Your task to perform on an android device: turn on the 12-hour format for clock Image 0: 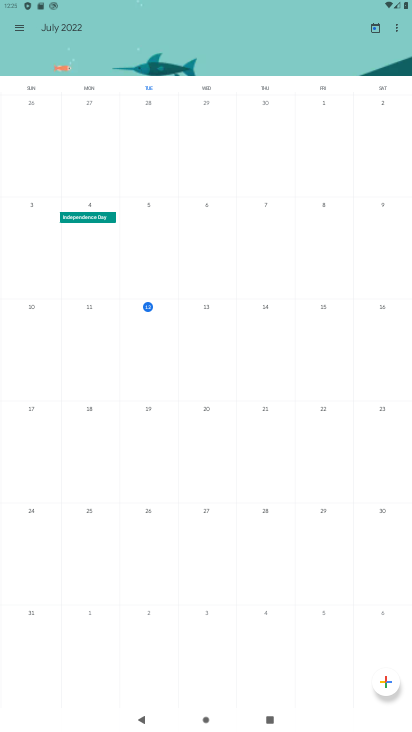
Step 0: press home button
Your task to perform on an android device: turn on the 12-hour format for clock Image 1: 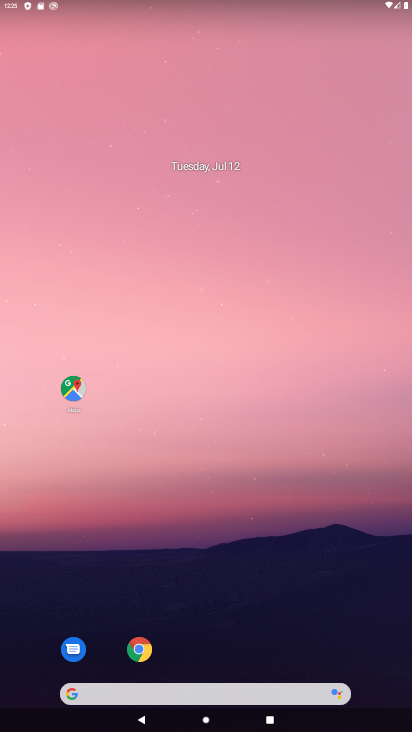
Step 1: drag from (224, 631) to (158, 167)
Your task to perform on an android device: turn on the 12-hour format for clock Image 2: 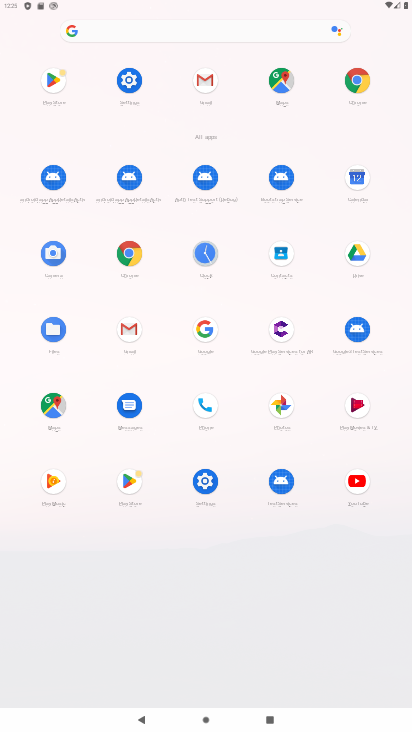
Step 2: click (207, 268)
Your task to perform on an android device: turn on the 12-hour format for clock Image 3: 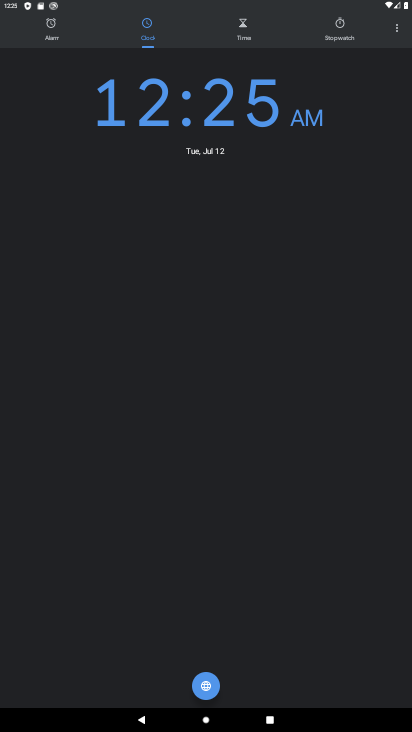
Step 3: click (392, 30)
Your task to perform on an android device: turn on the 12-hour format for clock Image 4: 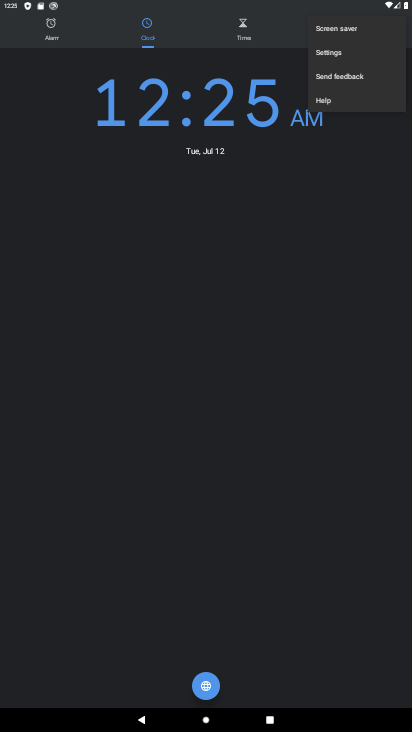
Step 4: click (331, 57)
Your task to perform on an android device: turn on the 12-hour format for clock Image 5: 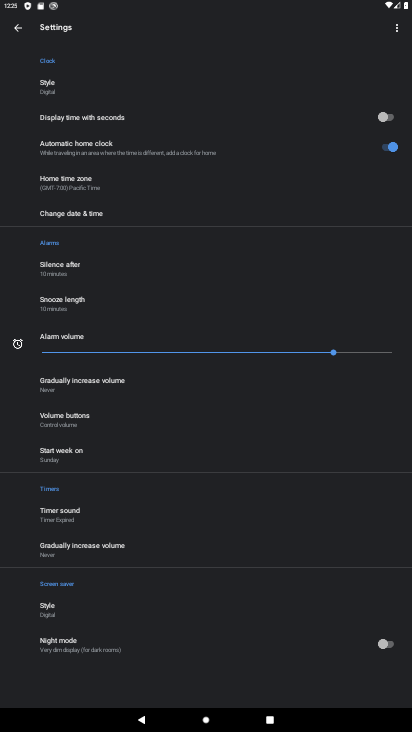
Step 5: click (15, 20)
Your task to perform on an android device: turn on the 12-hour format for clock Image 6: 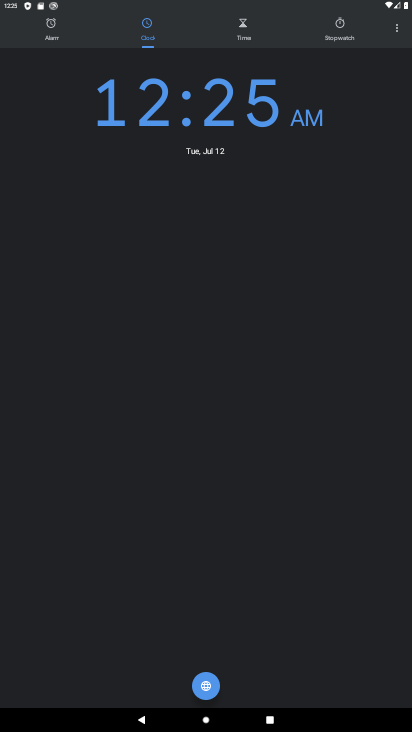
Step 6: click (399, 33)
Your task to perform on an android device: turn on the 12-hour format for clock Image 7: 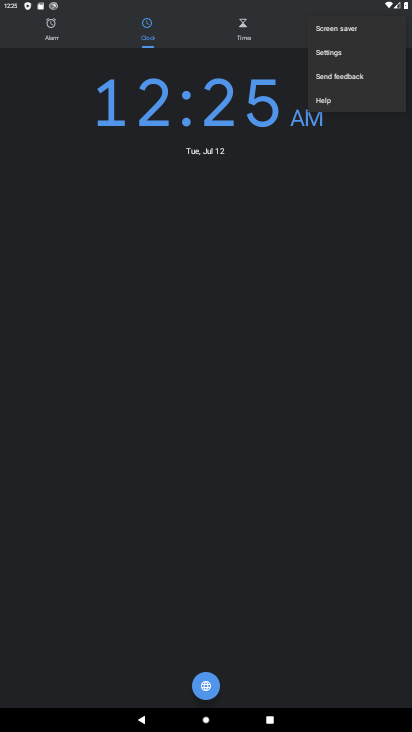
Step 7: click (341, 59)
Your task to perform on an android device: turn on the 12-hour format for clock Image 8: 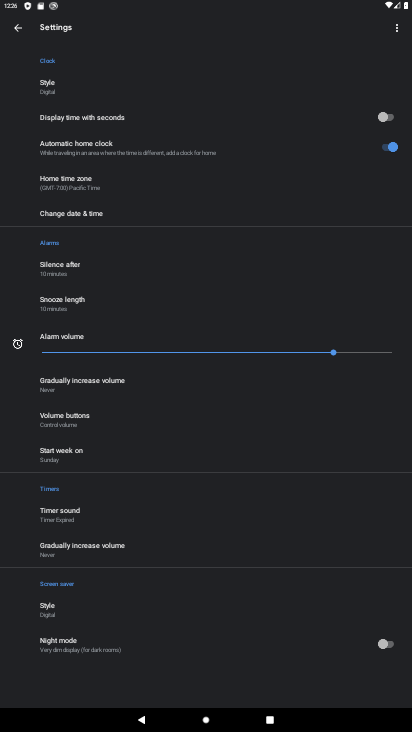
Step 8: click (117, 207)
Your task to perform on an android device: turn on the 12-hour format for clock Image 9: 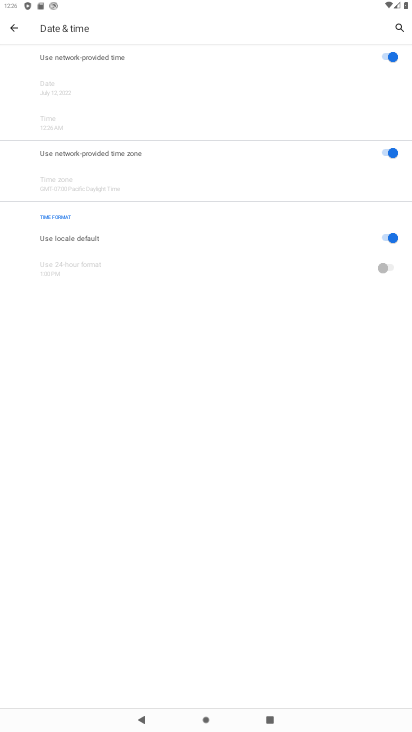
Step 9: click (369, 235)
Your task to perform on an android device: turn on the 12-hour format for clock Image 10: 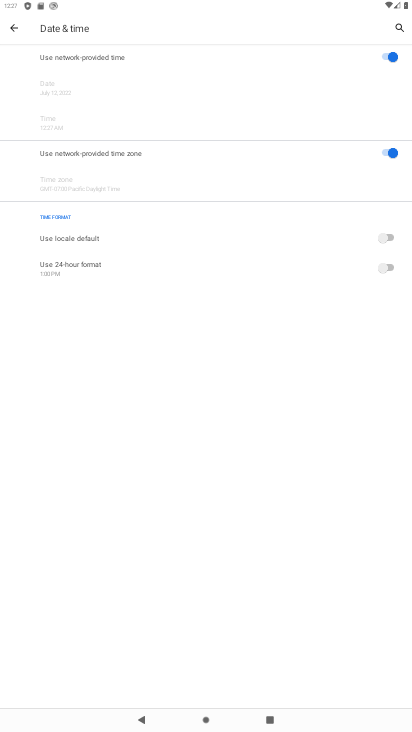
Step 10: task complete